Your task to perform on an android device: Set the phone to "Do not disturb". Image 0: 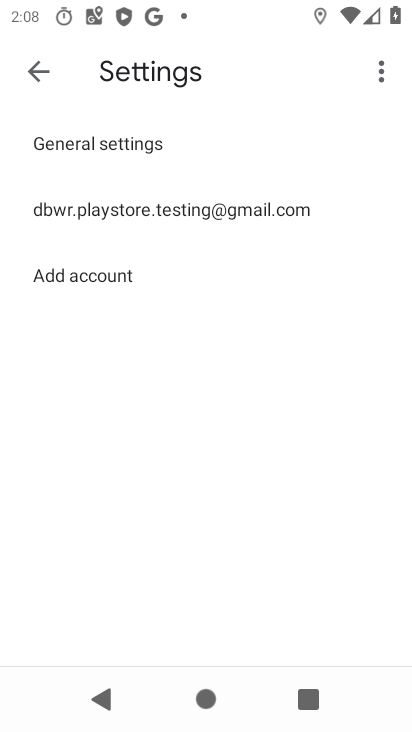
Step 0: press home button
Your task to perform on an android device: Set the phone to "Do not disturb". Image 1: 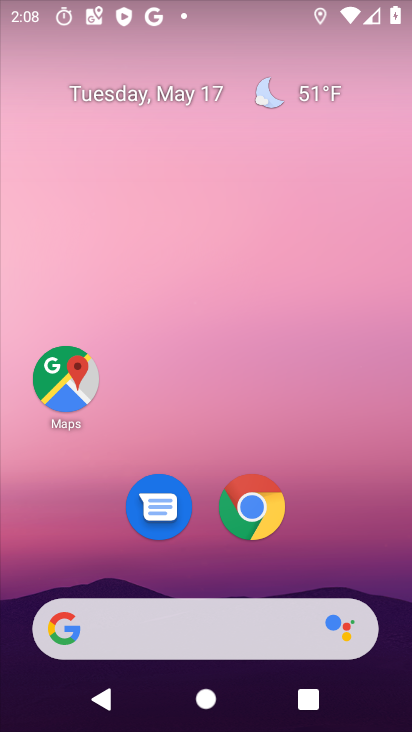
Step 1: drag from (208, 556) to (233, 159)
Your task to perform on an android device: Set the phone to "Do not disturb". Image 2: 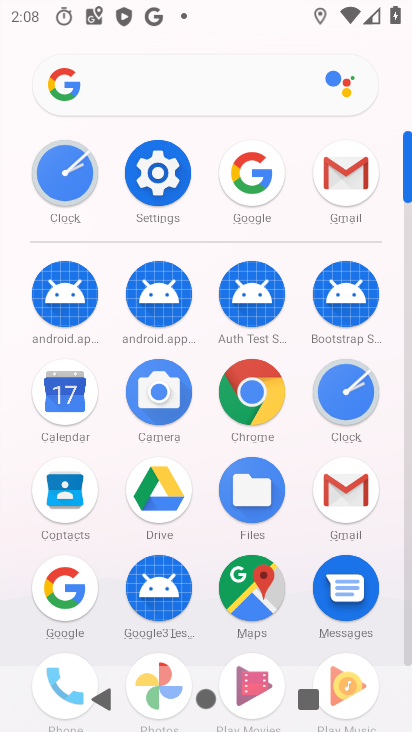
Step 2: click (165, 180)
Your task to perform on an android device: Set the phone to "Do not disturb". Image 3: 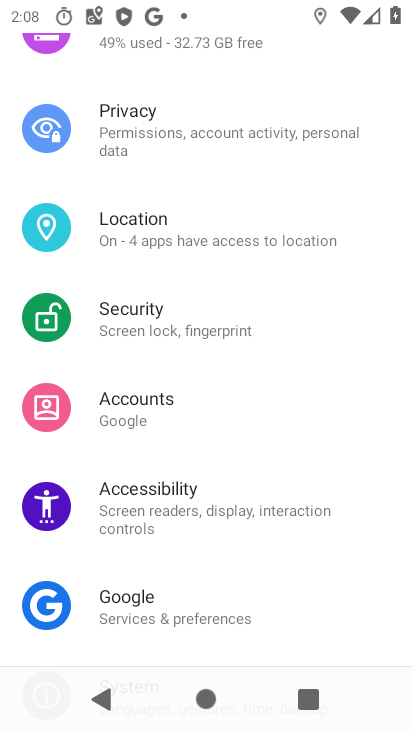
Step 3: drag from (238, 219) to (238, 473)
Your task to perform on an android device: Set the phone to "Do not disturb". Image 4: 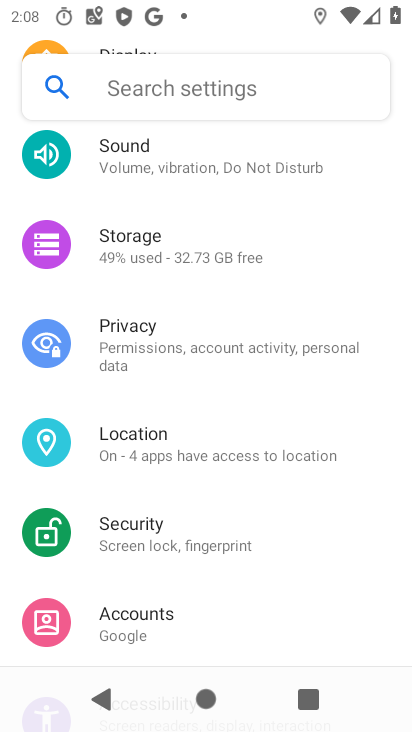
Step 4: click (192, 159)
Your task to perform on an android device: Set the phone to "Do not disturb". Image 5: 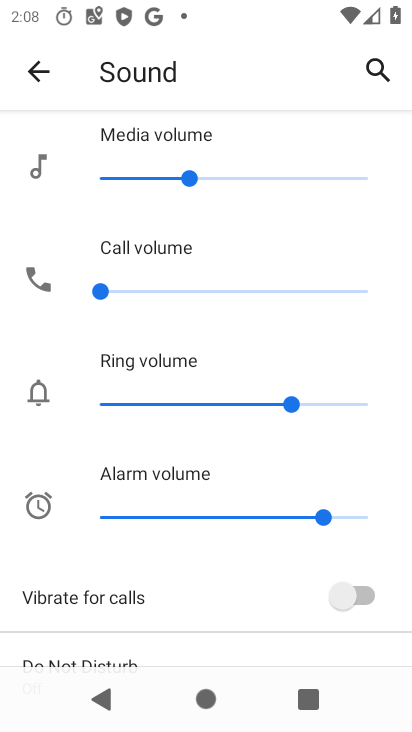
Step 5: drag from (198, 596) to (235, 309)
Your task to perform on an android device: Set the phone to "Do not disturb". Image 6: 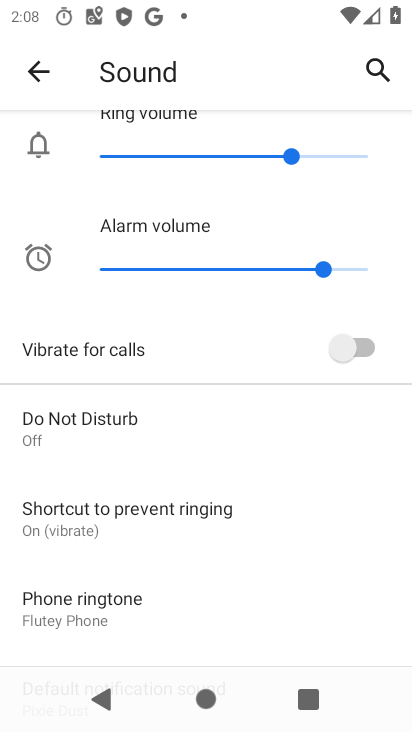
Step 6: click (109, 429)
Your task to perform on an android device: Set the phone to "Do not disturb". Image 7: 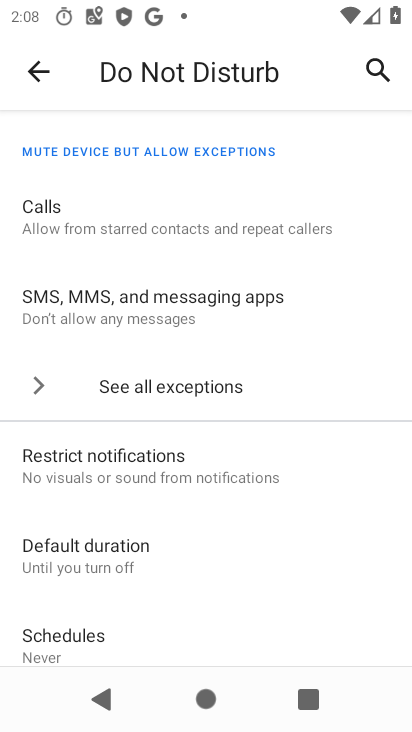
Step 7: drag from (172, 494) to (184, 169)
Your task to perform on an android device: Set the phone to "Do not disturb". Image 8: 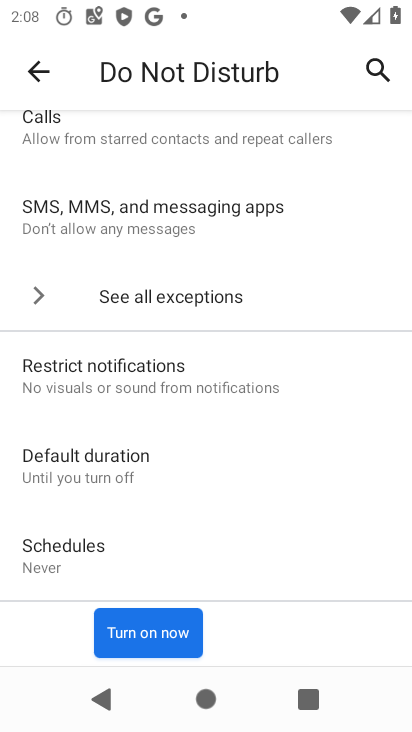
Step 8: click (162, 635)
Your task to perform on an android device: Set the phone to "Do not disturb". Image 9: 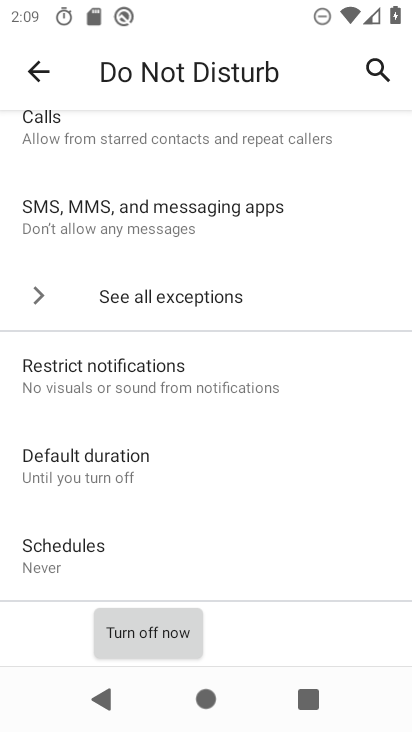
Step 9: task complete